Your task to perform on an android device: Go to calendar. Show me events next week Image 0: 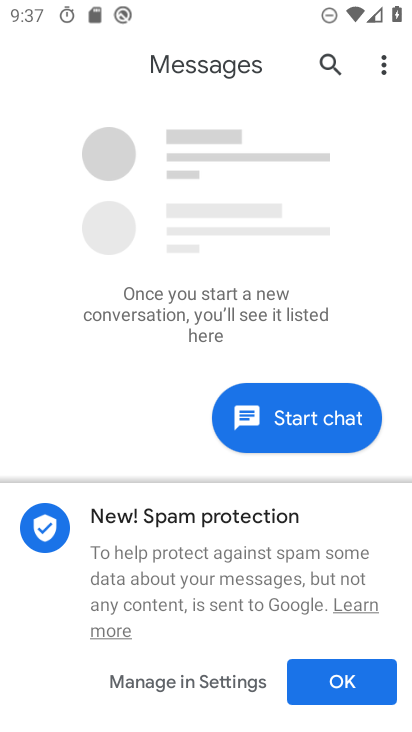
Step 0: press home button
Your task to perform on an android device: Go to calendar. Show me events next week Image 1: 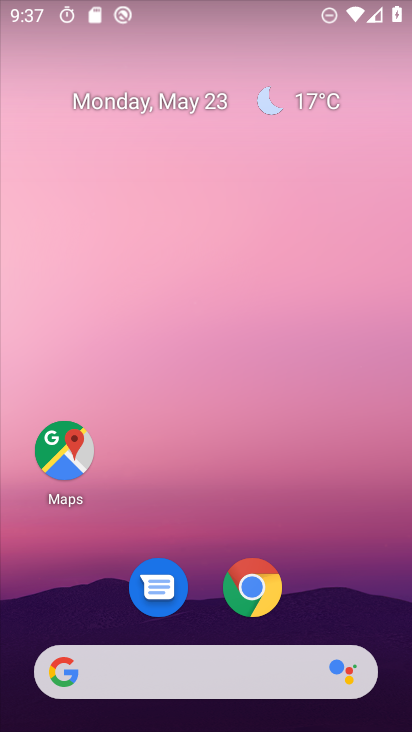
Step 1: drag from (215, 478) to (262, 24)
Your task to perform on an android device: Go to calendar. Show me events next week Image 2: 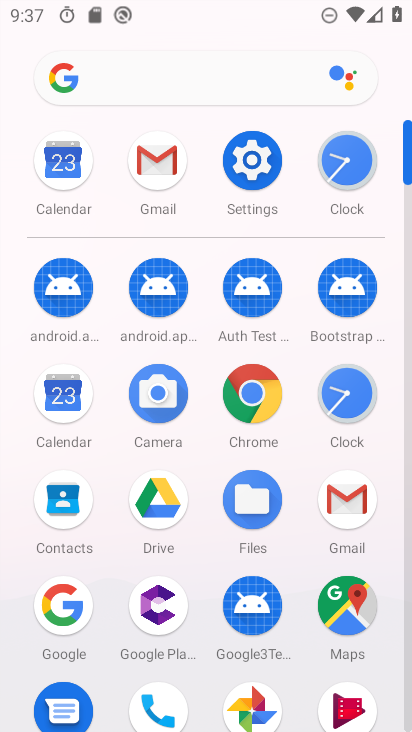
Step 2: click (49, 158)
Your task to perform on an android device: Go to calendar. Show me events next week Image 3: 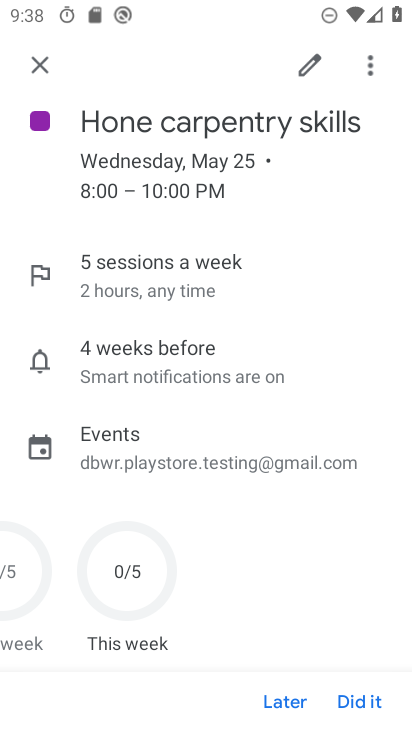
Step 3: click (45, 63)
Your task to perform on an android device: Go to calendar. Show me events next week Image 4: 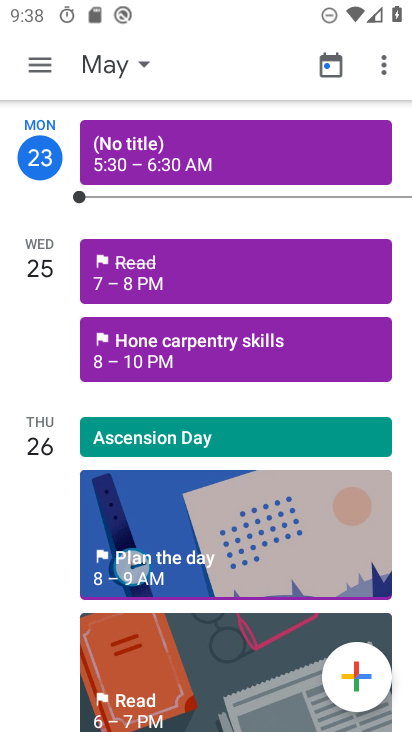
Step 4: drag from (195, 593) to (325, 109)
Your task to perform on an android device: Go to calendar. Show me events next week Image 5: 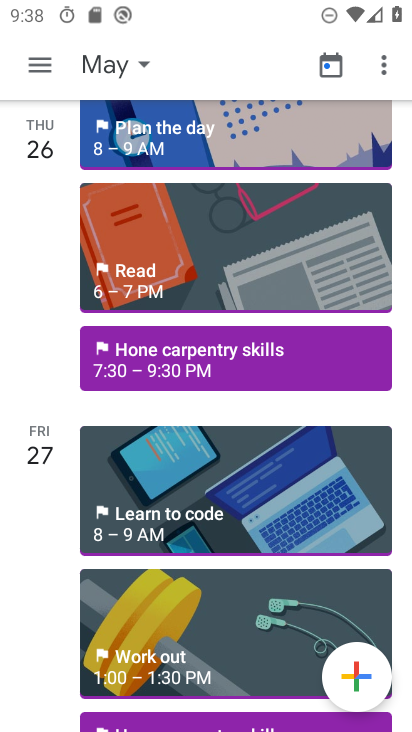
Step 5: drag from (195, 692) to (323, 18)
Your task to perform on an android device: Go to calendar. Show me events next week Image 6: 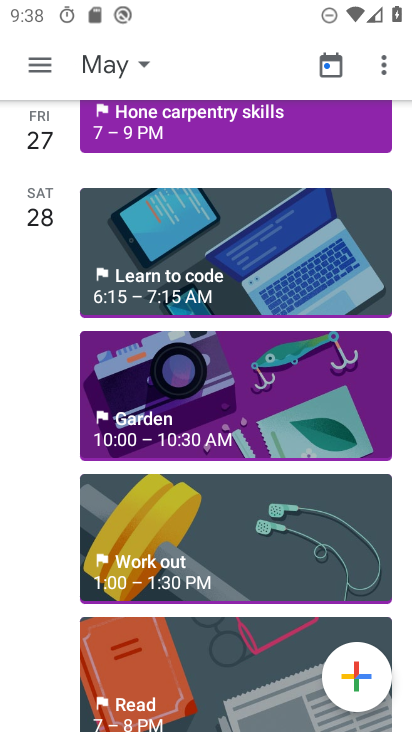
Step 6: drag from (191, 594) to (307, 8)
Your task to perform on an android device: Go to calendar. Show me events next week Image 7: 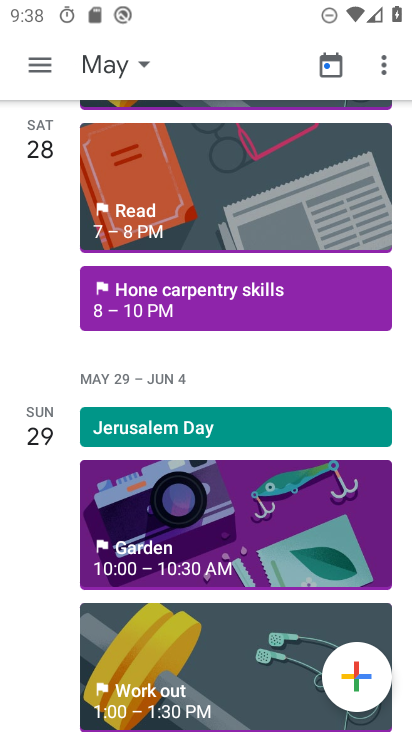
Step 7: drag from (170, 628) to (332, 10)
Your task to perform on an android device: Go to calendar. Show me events next week Image 8: 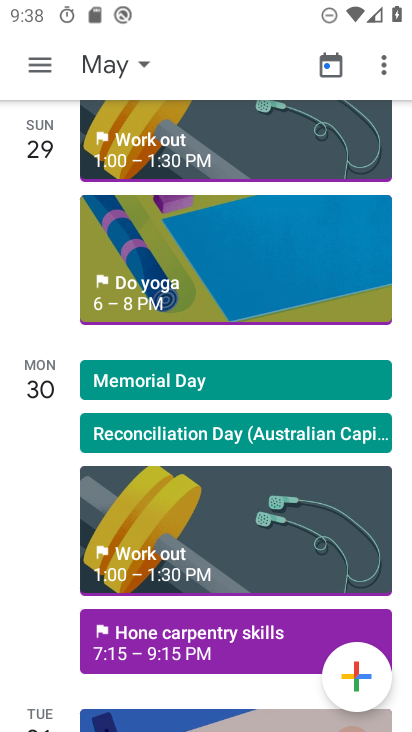
Step 8: click (158, 382)
Your task to perform on an android device: Go to calendar. Show me events next week Image 9: 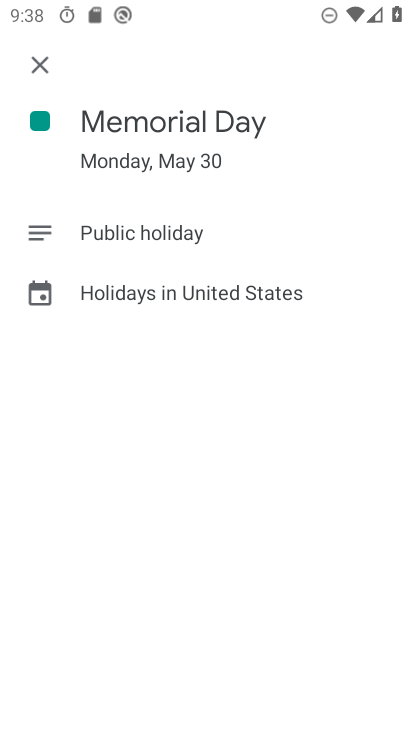
Step 9: task complete